Your task to perform on an android device: change the clock display to analog Image 0: 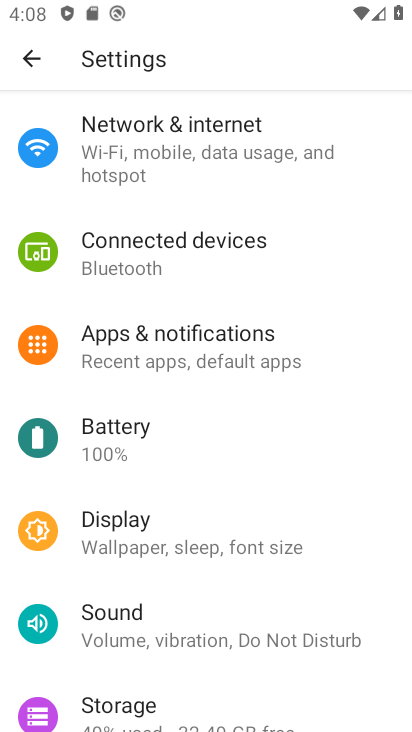
Step 0: press back button
Your task to perform on an android device: change the clock display to analog Image 1: 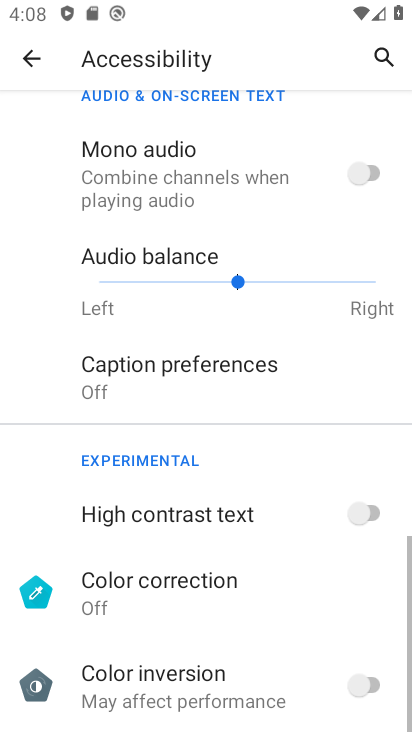
Step 1: press back button
Your task to perform on an android device: change the clock display to analog Image 2: 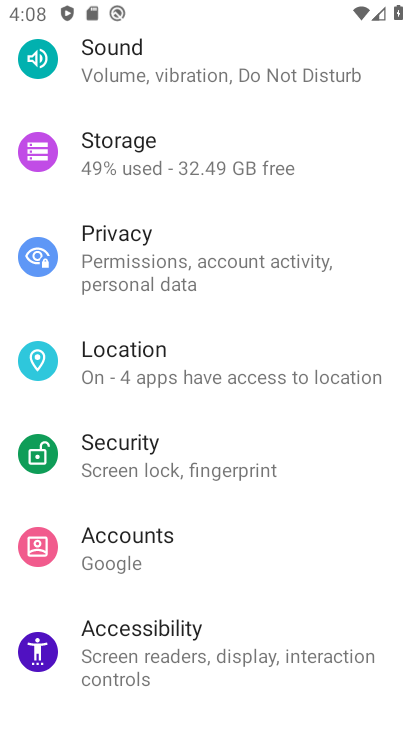
Step 2: press home button
Your task to perform on an android device: change the clock display to analog Image 3: 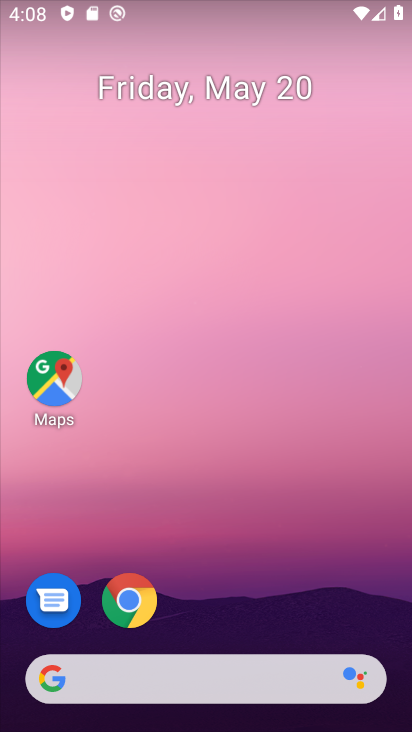
Step 3: drag from (276, 560) to (210, 5)
Your task to perform on an android device: change the clock display to analog Image 4: 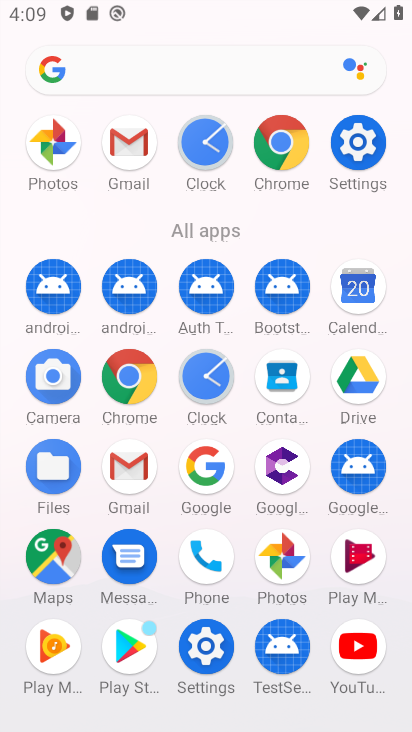
Step 4: drag from (4, 567) to (10, 257)
Your task to perform on an android device: change the clock display to analog Image 5: 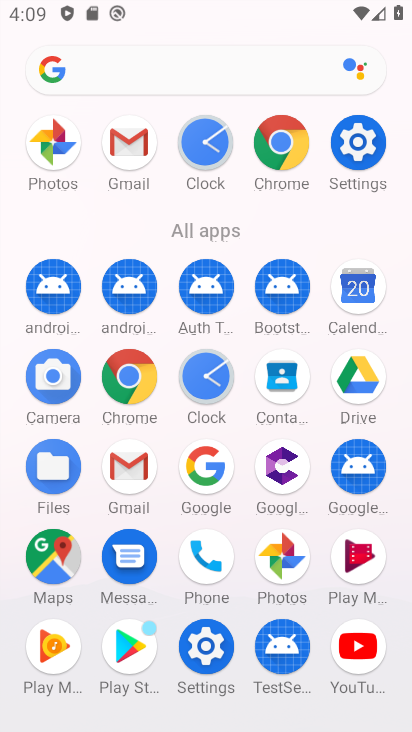
Step 5: click (207, 372)
Your task to perform on an android device: change the clock display to analog Image 6: 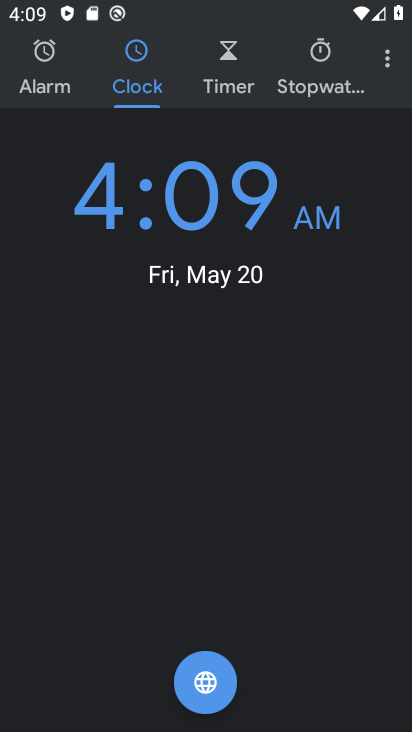
Step 6: drag from (379, 64) to (295, 118)
Your task to perform on an android device: change the clock display to analog Image 7: 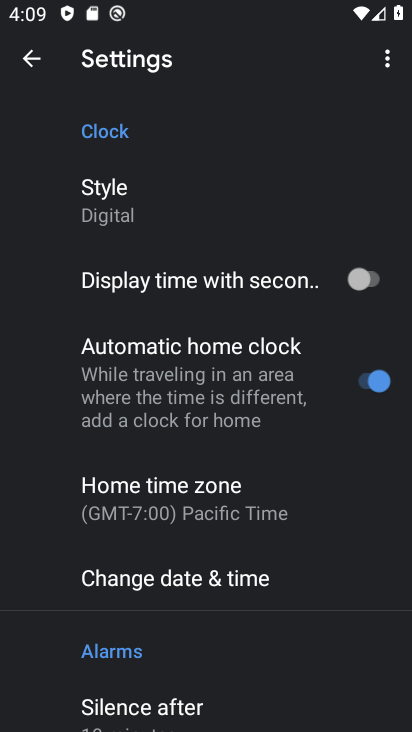
Step 7: drag from (223, 564) to (245, 122)
Your task to perform on an android device: change the clock display to analog Image 8: 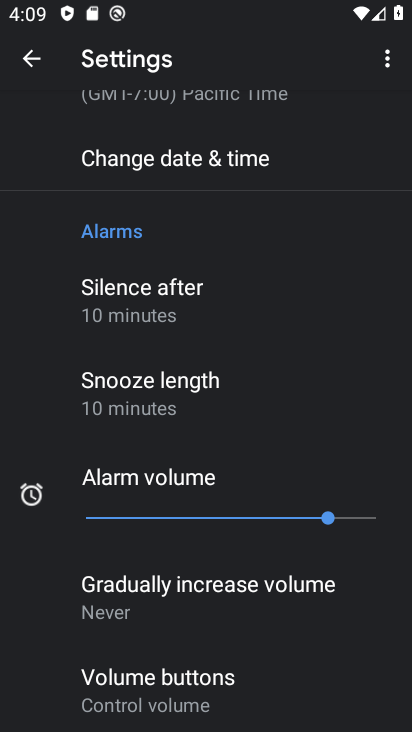
Step 8: drag from (203, 216) to (214, 642)
Your task to perform on an android device: change the clock display to analog Image 9: 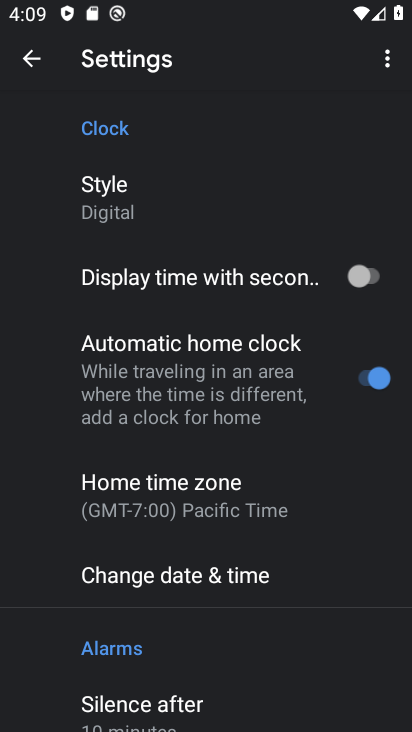
Step 9: click (170, 197)
Your task to perform on an android device: change the clock display to analog Image 10: 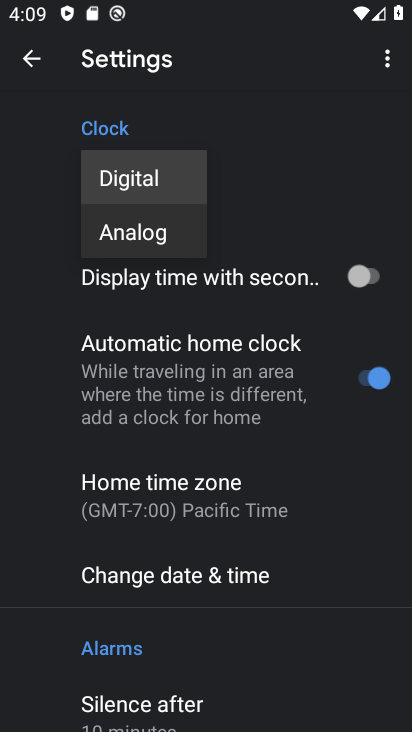
Step 10: click (142, 218)
Your task to perform on an android device: change the clock display to analog Image 11: 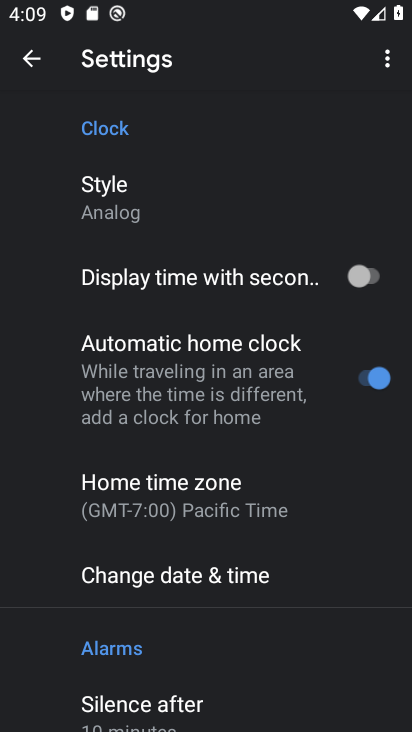
Step 11: task complete